Your task to perform on an android device: Open location settings Image 0: 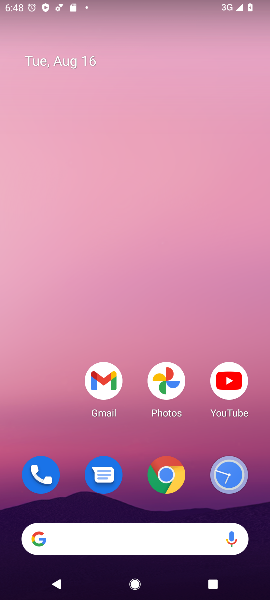
Step 0: drag from (195, 478) to (3, 219)
Your task to perform on an android device: Open location settings Image 1: 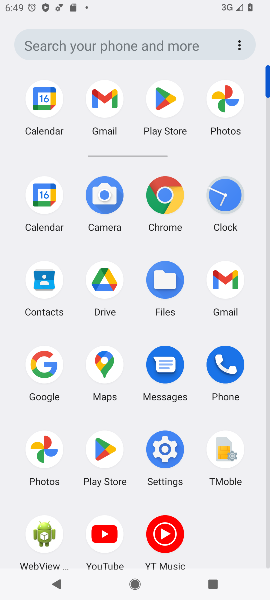
Step 1: click (167, 460)
Your task to perform on an android device: Open location settings Image 2: 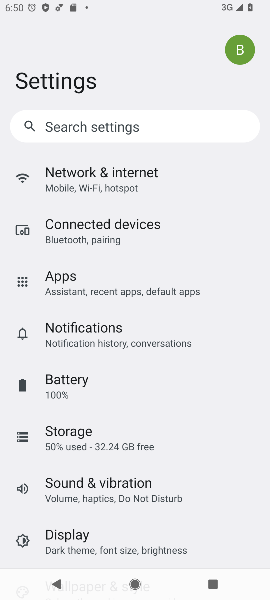
Step 2: drag from (79, 513) to (61, 141)
Your task to perform on an android device: Open location settings Image 3: 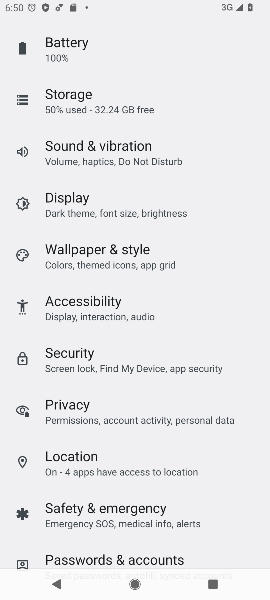
Step 3: click (62, 474)
Your task to perform on an android device: Open location settings Image 4: 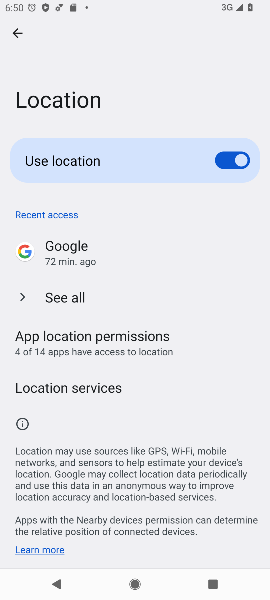
Step 4: click (71, 394)
Your task to perform on an android device: Open location settings Image 5: 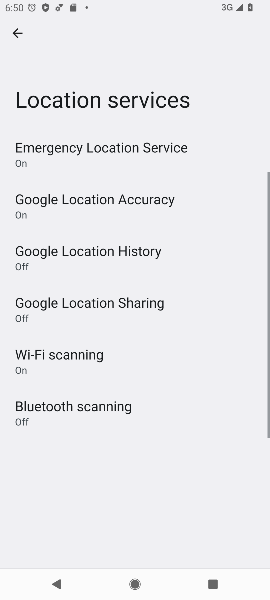
Step 5: task complete